Your task to perform on an android device: Open Chrome and go to settings Image 0: 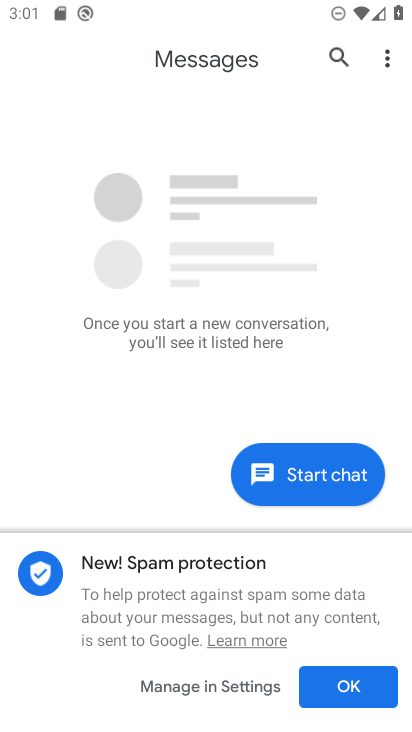
Step 0: press home button
Your task to perform on an android device: Open Chrome and go to settings Image 1: 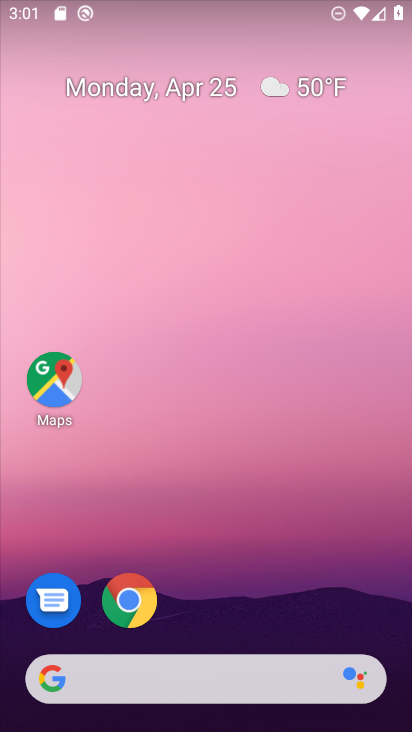
Step 1: drag from (200, 643) to (221, 75)
Your task to perform on an android device: Open Chrome and go to settings Image 2: 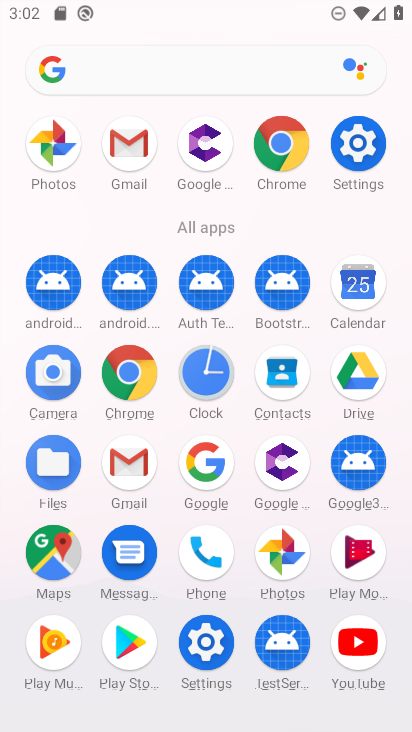
Step 2: click (287, 160)
Your task to perform on an android device: Open Chrome and go to settings Image 3: 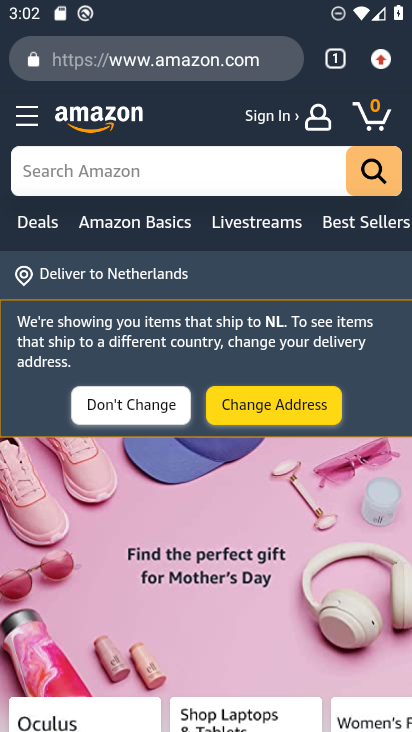
Step 3: click (384, 49)
Your task to perform on an android device: Open Chrome and go to settings Image 4: 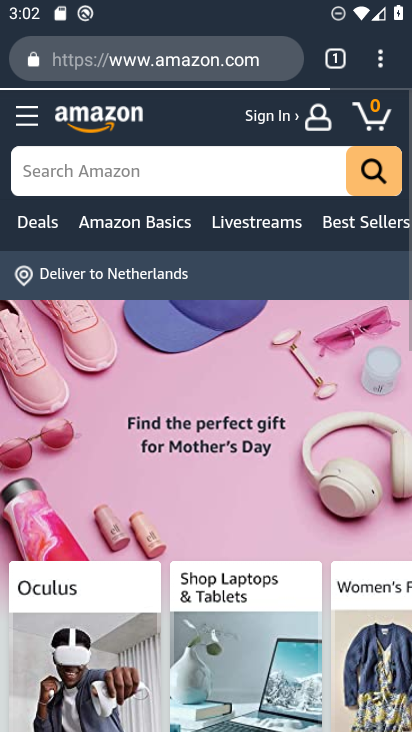
Step 4: task complete